Your task to perform on an android device: toggle translation in the chrome app Image 0: 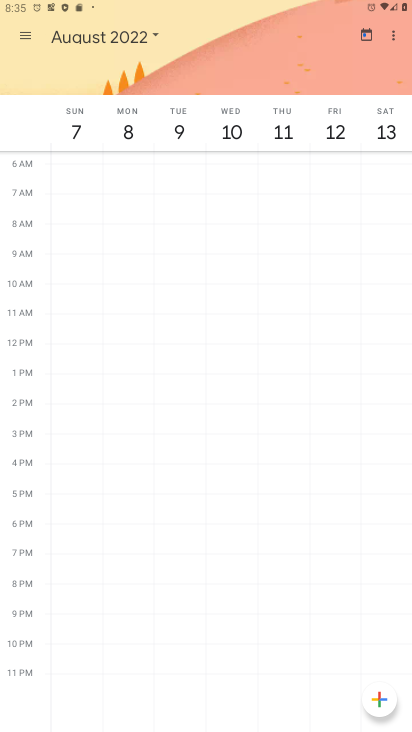
Step 0: press home button
Your task to perform on an android device: toggle translation in the chrome app Image 1: 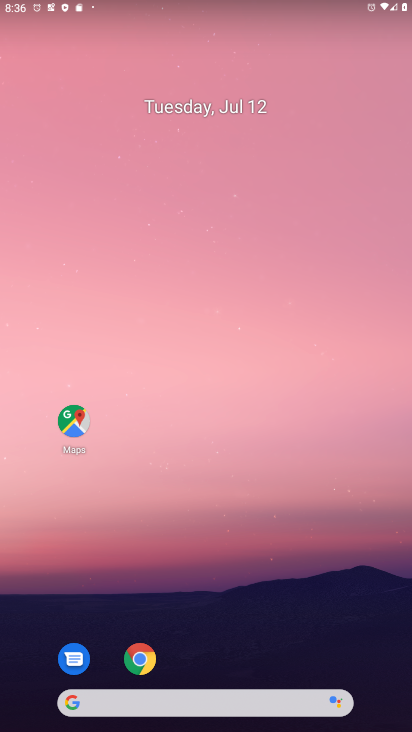
Step 1: click (142, 659)
Your task to perform on an android device: toggle translation in the chrome app Image 2: 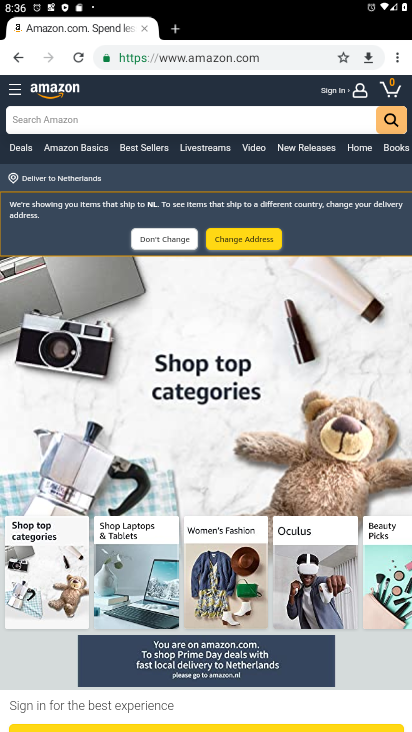
Step 2: click (399, 58)
Your task to perform on an android device: toggle translation in the chrome app Image 3: 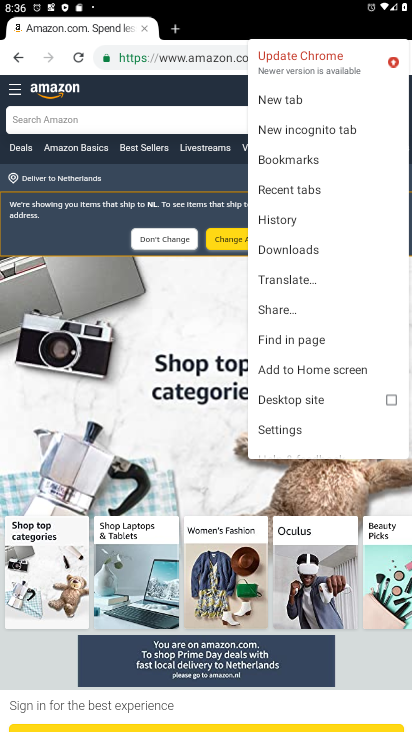
Step 3: click (291, 433)
Your task to perform on an android device: toggle translation in the chrome app Image 4: 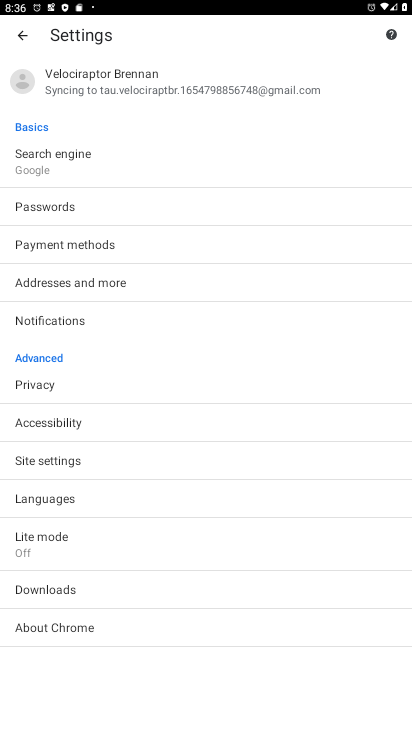
Step 4: click (60, 499)
Your task to perform on an android device: toggle translation in the chrome app Image 5: 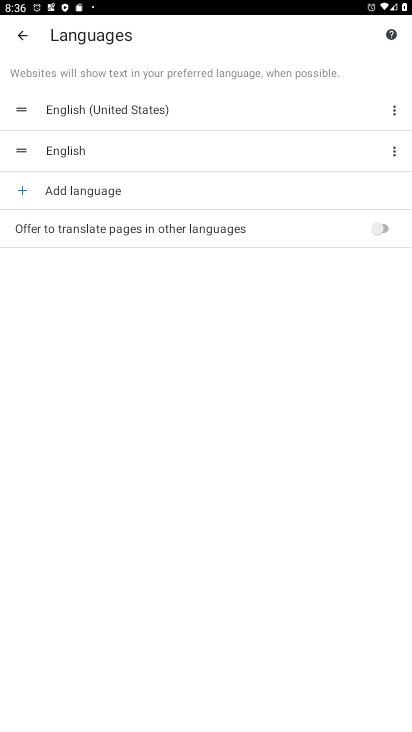
Step 5: click (372, 231)
Your task to perform on an android device: toggle translation in the chrome app Image 6: 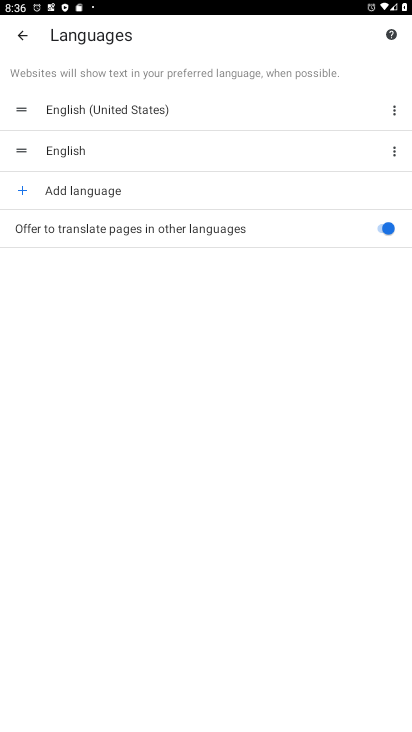
Step 6: task complete